Your task to perform on an android device: toggle priority inbox in the gmail app Image 0: 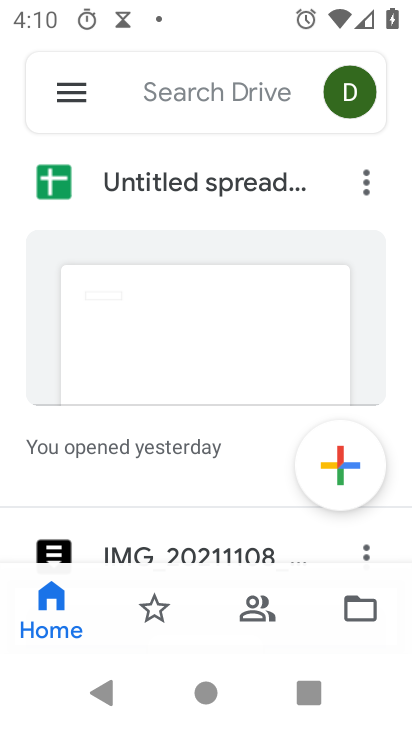
Step 0: press home button
Your task to perform on an android device: toggle priority inbox in the gmail app Image 1: 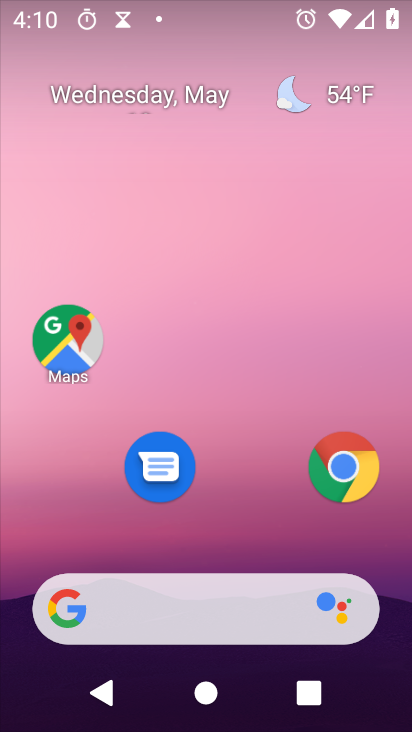
Step 1: drag from (236, 528) to (167, 242)
Your task to perform on an android device: toggle priority inbox in the gmail app Image 2: 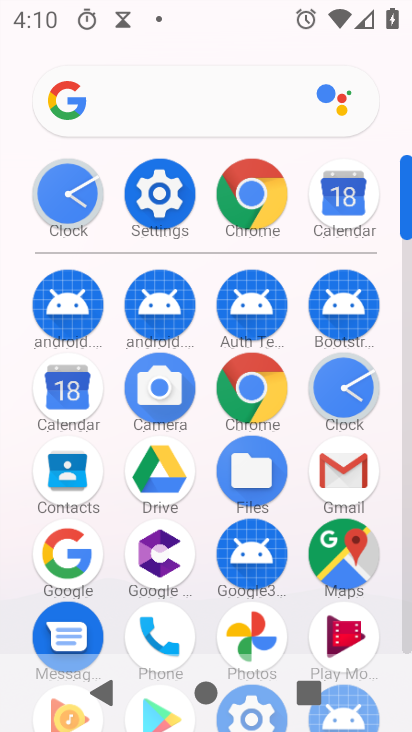
Step 2: click (343, 478)
Your task to perform on an android device: toggle priority inbox in the gmail app Image 3: 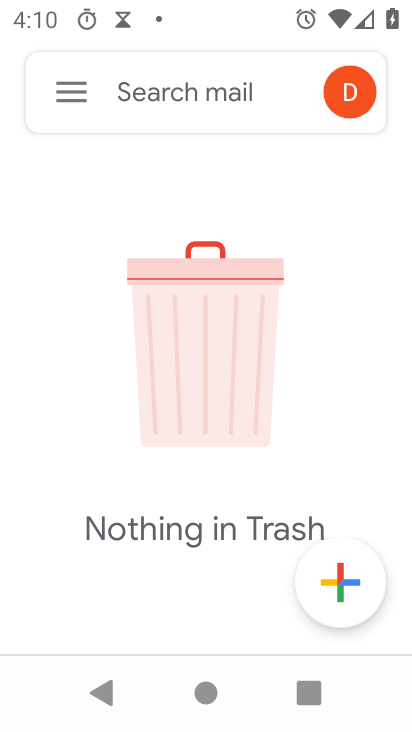
Step 3: click (67, 80)
Your task to perform on an android device: toggle priority inbox in the gmail app Image 4: 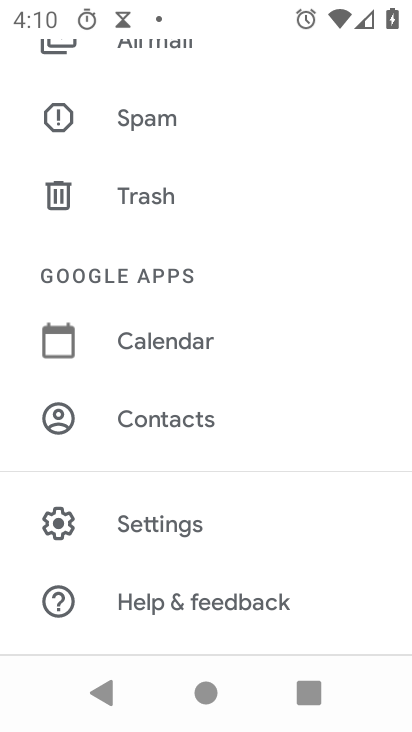
Step 4: click (176, 513)
Your task to perform on an android device: toggle priority inbox in the gmail app Image 5: 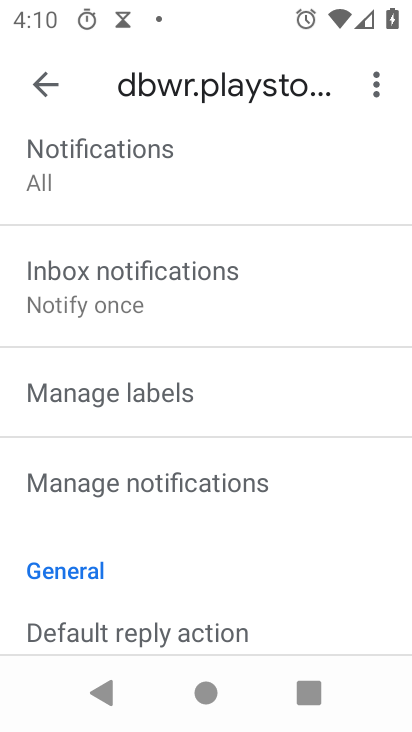
Step 5: drag from (176, 513) to (197, 104)
Your task to perform on an android device: toggle priority inbox in the gmail app Image 6: 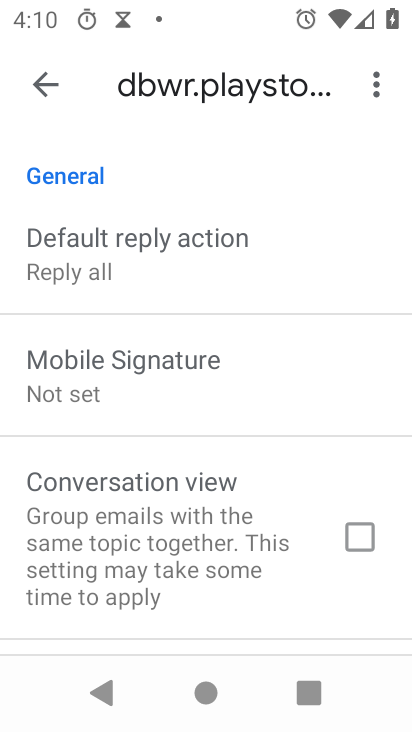
Step 6: drag from (198, 191) to (276, 727)
Your task to perform on an android device: toggle priority inbox in the gmail app Image 7: 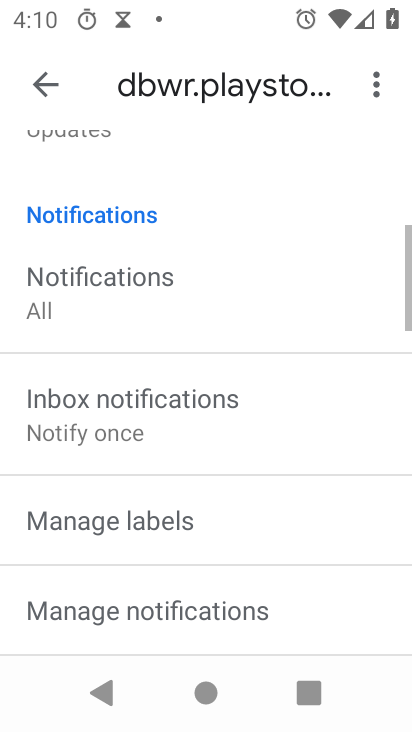
Step 7: drag from (181, 265) to (238, 655)
Your task to perform on an android device: toggle priority inbox in the gmail app Image 8: 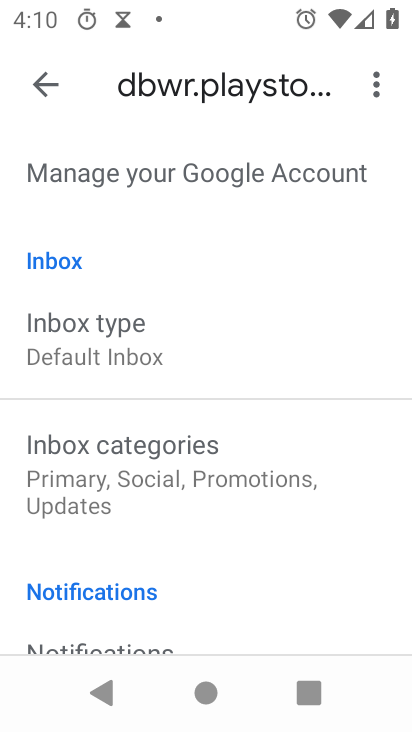
Step 8: click (167, 364)
Your task to perform on an android device: toggle priority inbox in the gmail app Image 9: 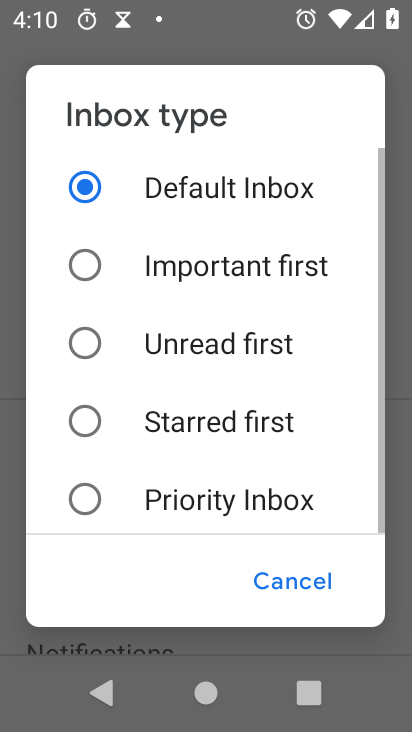
Step 9: click (199, 492)
Your task to perform on an android device: toggle priority inbox in the gmail app Image 10: 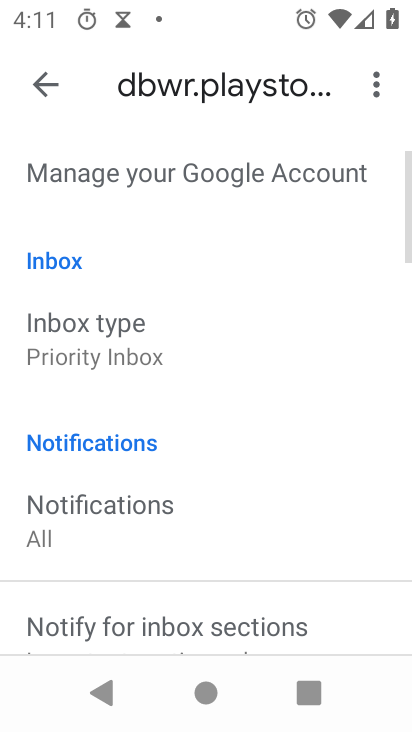
Step 10: task complete